Your task to perform on an android device: Open Chrome and go to settings Image 0: 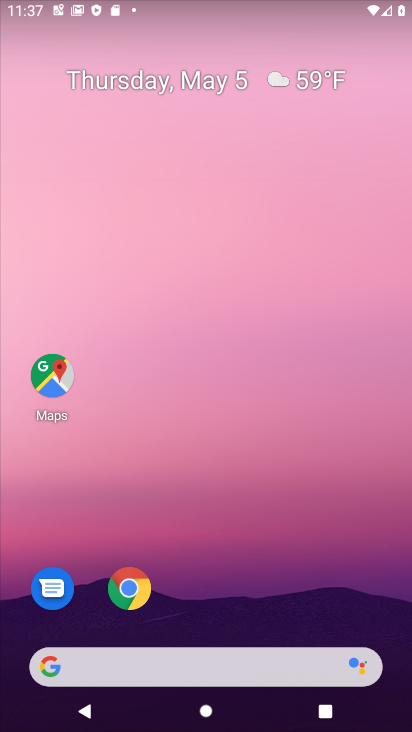
Step 0: drag from (188, 674) to (358, 19)
Your task to perform on an android device: Open Chrome and go to settings Image 1: 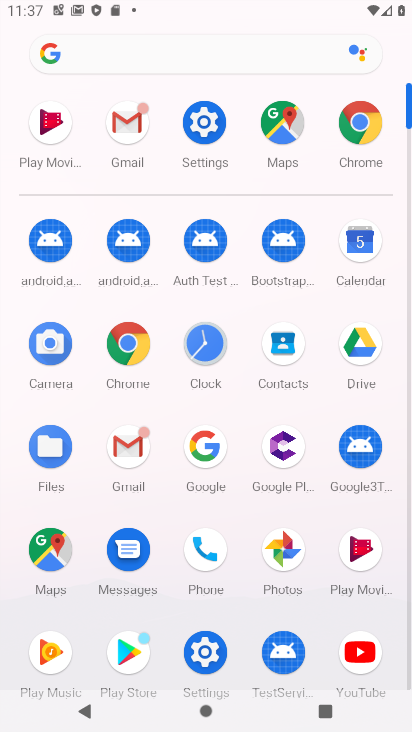
Step 1: click (367, 128)
Your task to perform on an android device: Open Chrome and go to settings Image 2: 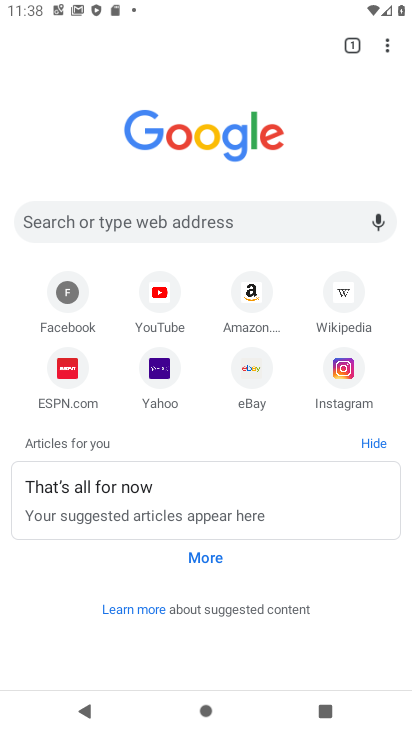
Step 2: task complete